Your task to perform on an android device: turn pop-ups off in chrome Image 0: 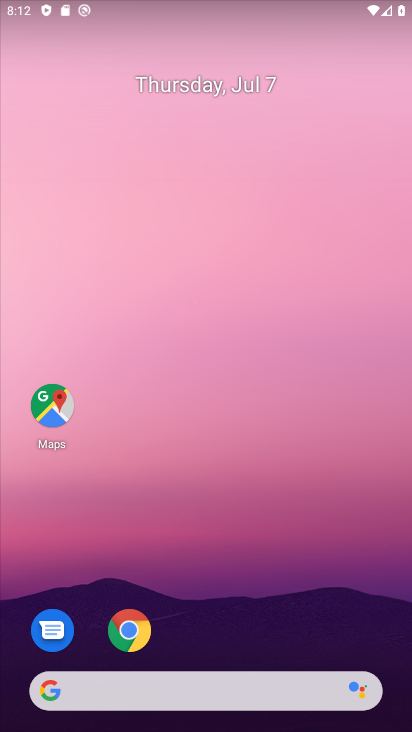
Step 0: click (126, 635)
Your task to perform on an android device: turn pop-ups off in chrome Image 1: 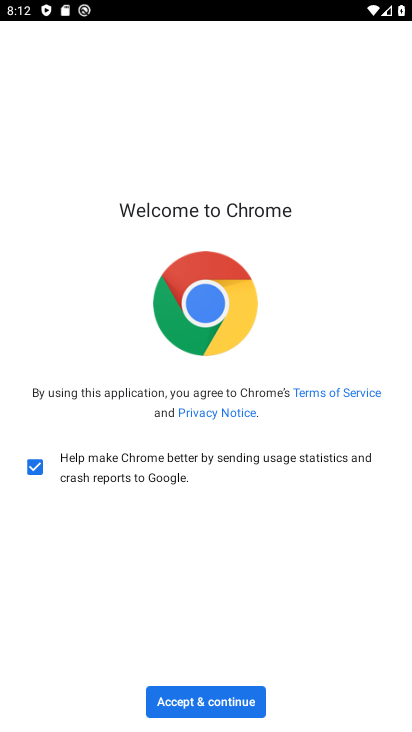
Step 1: click (253, 709)
Your task to perform on an android device: turn pop-ups off in chrome Image 2: 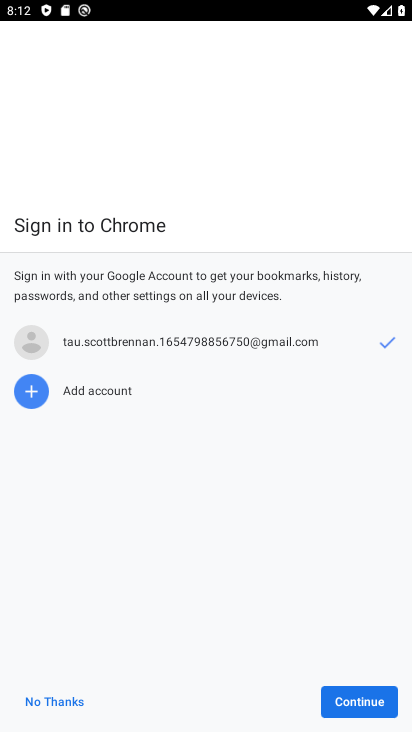
Step 2: click (338, 700)
Your task to perform on an android device: turn pop-ups off in chrome Image 3: 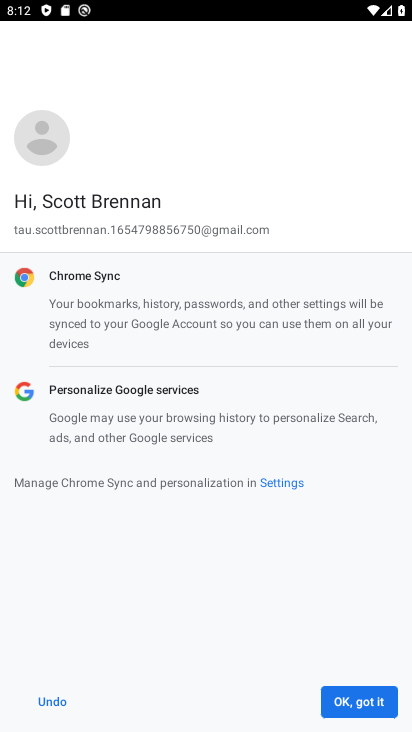
Step 3: click (356, 714)
Your task to perform on an android device: turn pop-ups off in chrome Image 4: 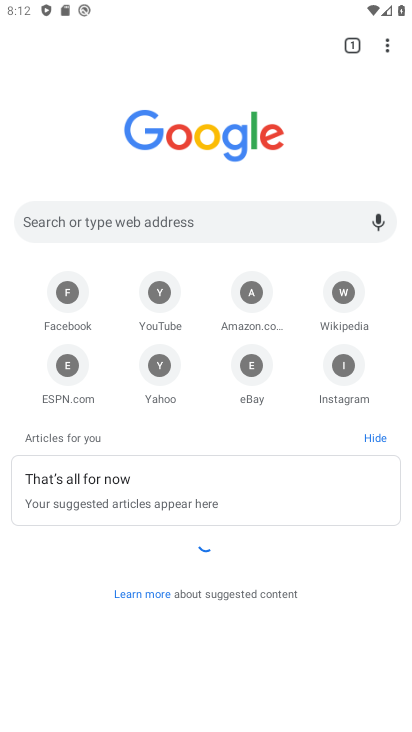
Step 4: click (393, 43)
Your task to perform on an android device: turn pop-ups off in chrome Image 5: 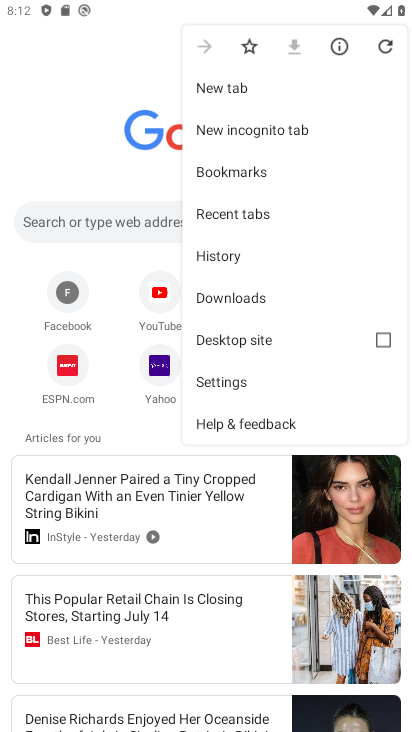
Step 5: click (222, 385)
Your task to perform on an android device: turn pop-ups off in chrome Image 6: 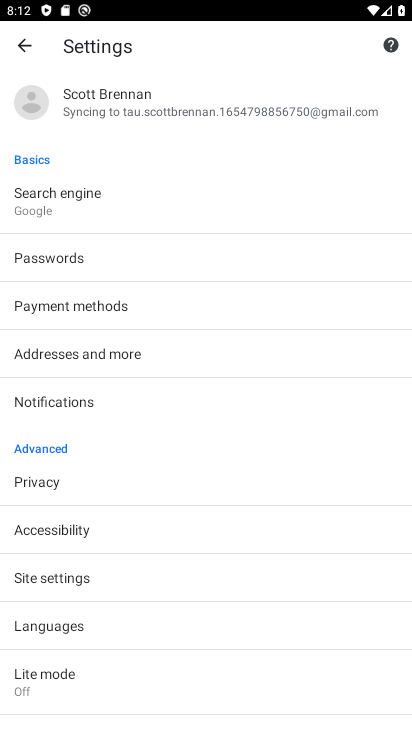
Step 6: click (172, 583)
Your task to perform on an android device: turn pop-ups off in chrome Image 7: 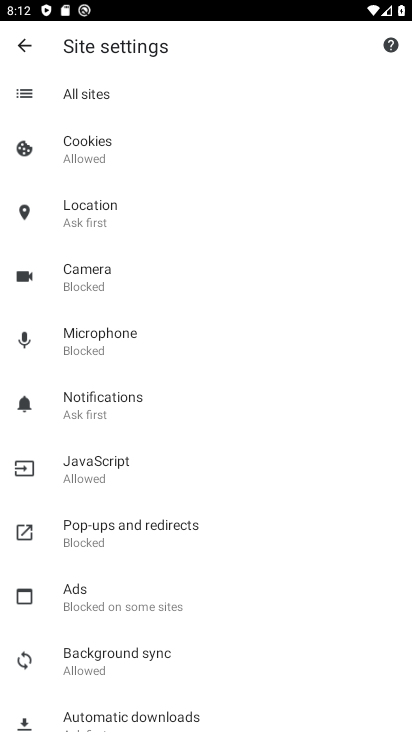
Step 7: click (195, 541)
Your task to perform on an android device: turn pop-ups off in chrome Image 8: 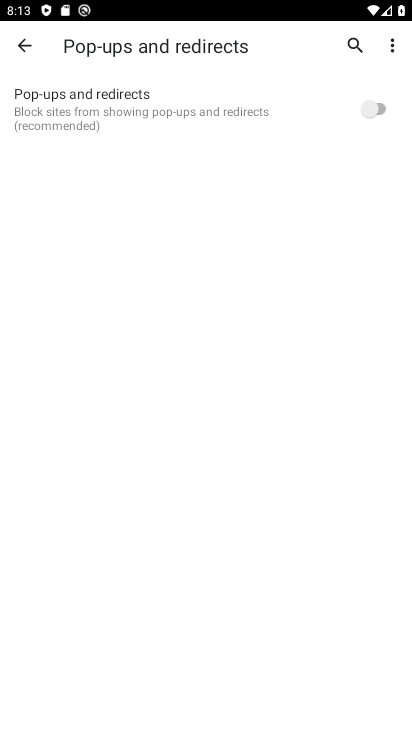
Step 8: task complete